Your task to perform on an android device: turn off wifi Image 0: 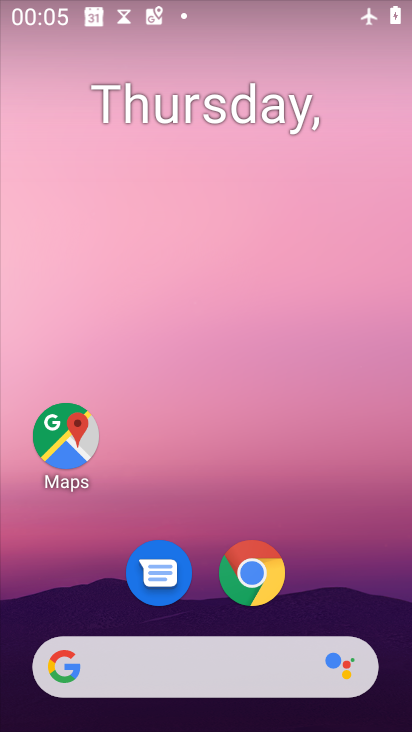
Step 0: drag from (324, 593) to (365, 165)
Your task to perform on an android device: turn off wifi Image 1: 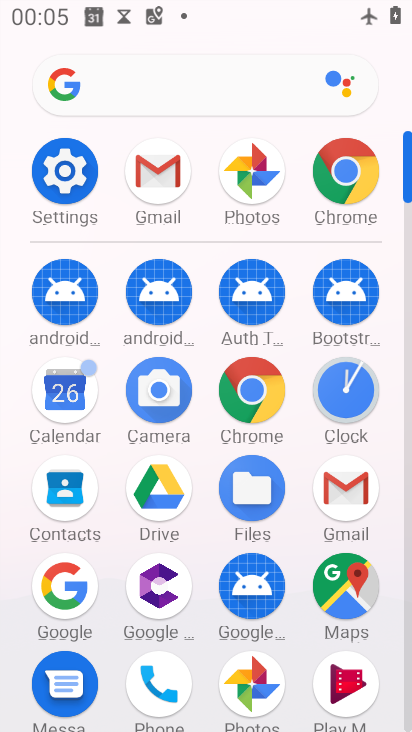
Step 1: click (53, 167)
Your task to perform on an android device: turn off wifi Image 2: 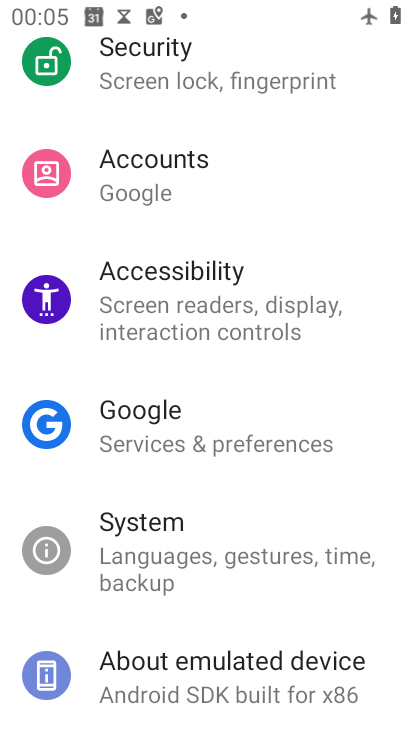
Step 2: drag from (203, 96) to (211, 524)
Your task to perform on an android device: turn off wifi Image 3: 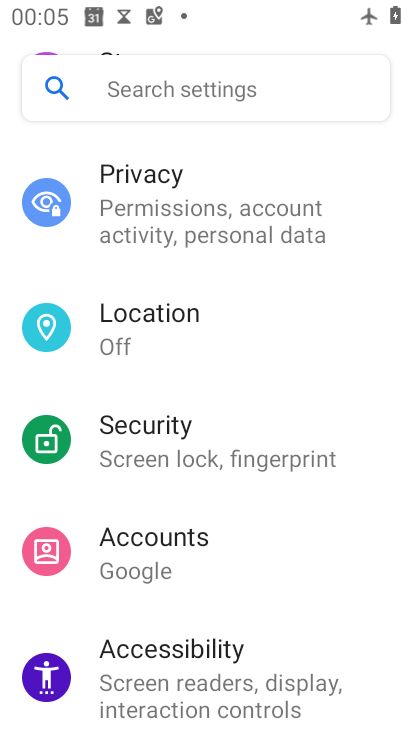
Step 3: drag from (226, 182) to (229, 550)
Your task to perform on an android device: turn off wifi Image 4: 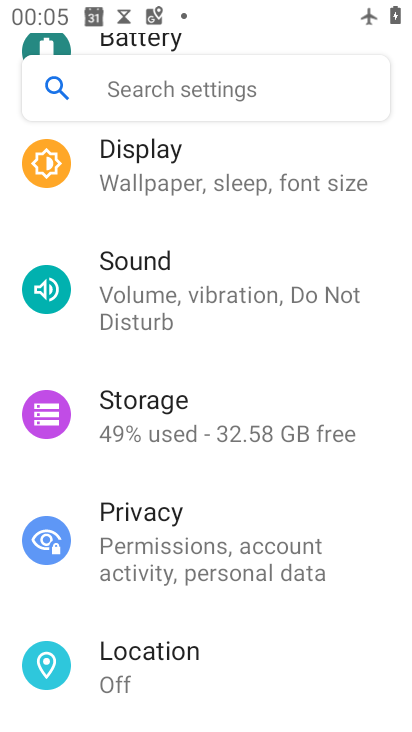
Step 4: drag from (210, 199) to (210, 235)
Your task to perform on an android device: turn off wifi Image 5: 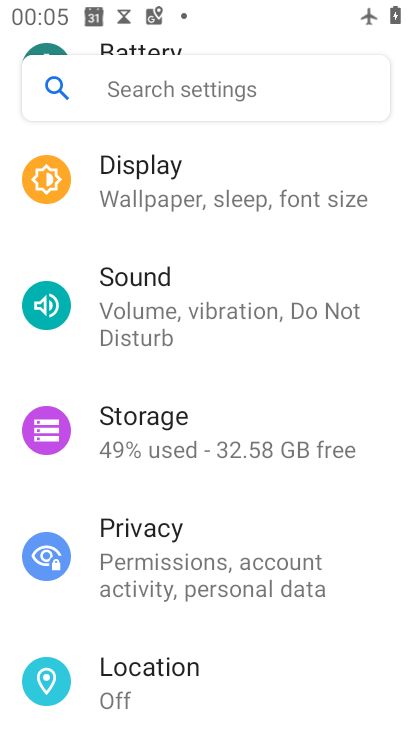
Step 5: drag from (186, 164) to (188, 517)
Your task to perform on an android device: turn off wifi Image 6: 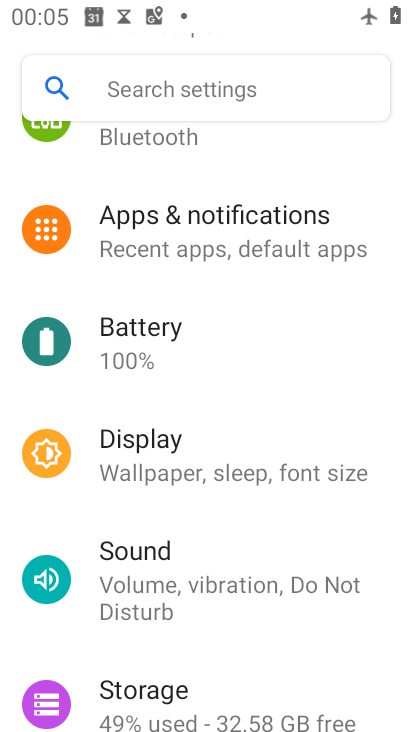
Step 6: drag from (203, 182) to (218, 563)
Your task to perform on an android device: turn off wifi Image 7: 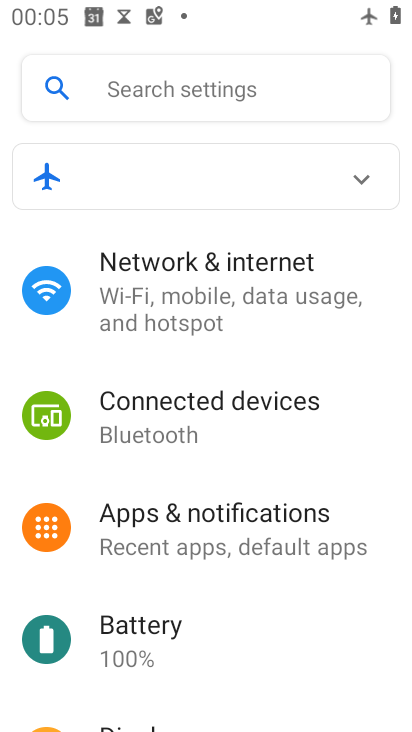
Step 7: click (196, 263)
Your task to perform on an android device: turn off wifi Image 8: 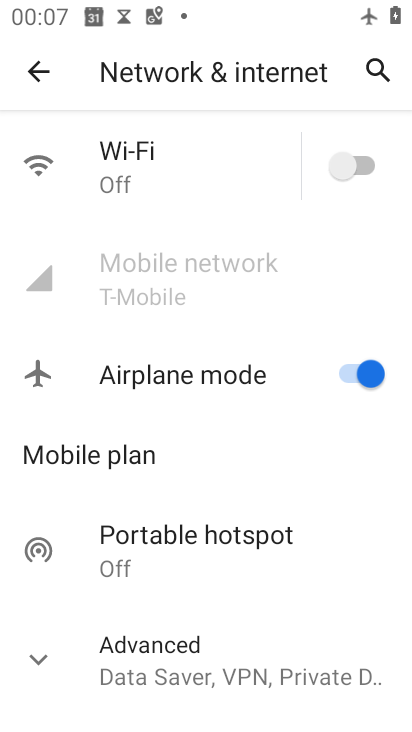
Step 8: task complete